Your task to perform on an android device: change alarm snooze length Image 0: 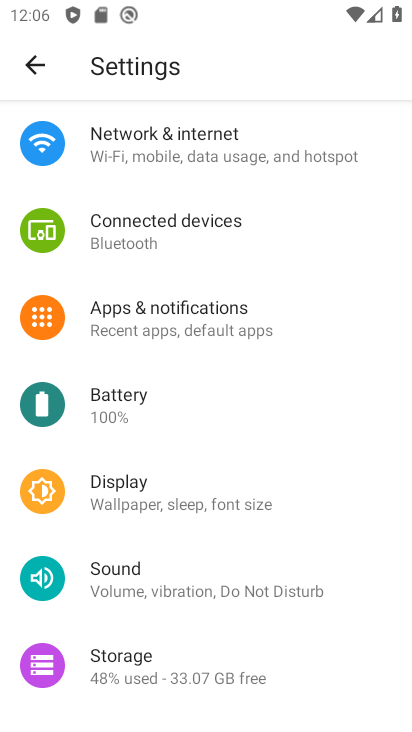
Step 0: press home button
Your task to perform on an android device: change alarm snooze length Image 1: 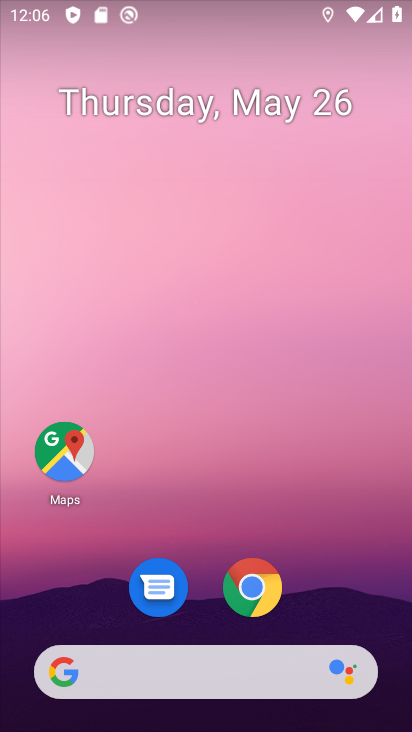
Step 1: drag from (367, 606) to (385, 176)
Your task to perform on an android device: change alarm snooze length Image 2: 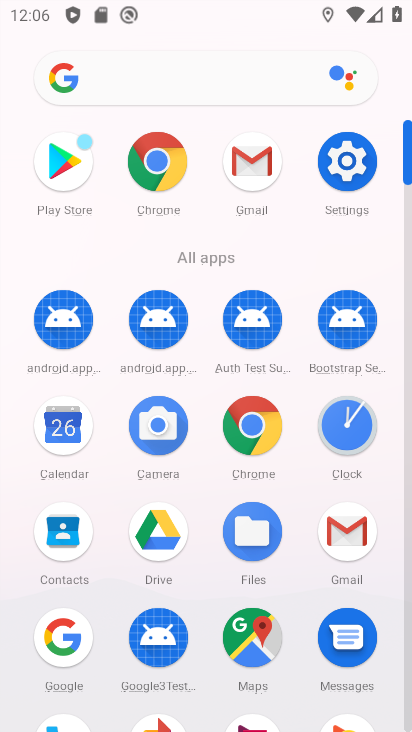
Step 2: click (353, 431)
Your task to perform on an android device: change alarm snooze length Image 3: 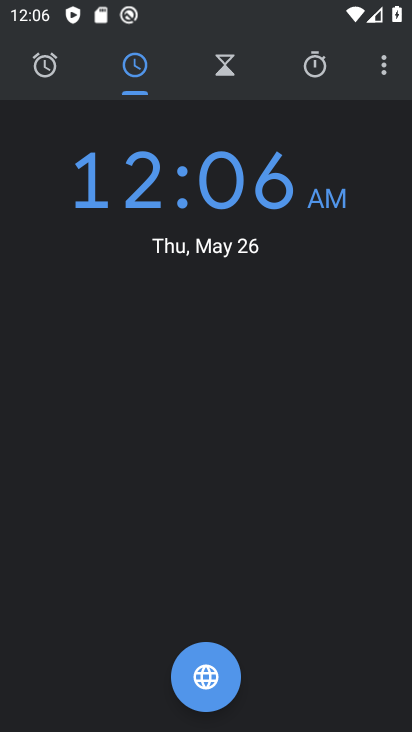
Step 3: click (384, 76)
Your task to perform on an android device: change alarm snooze length Image 4: 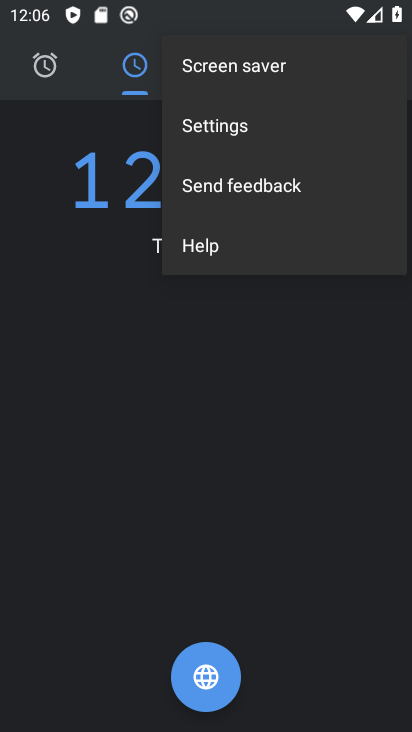
Step 4: click (246, 139)
Your task to perform on an android device: change alarm snooze length Image 5: 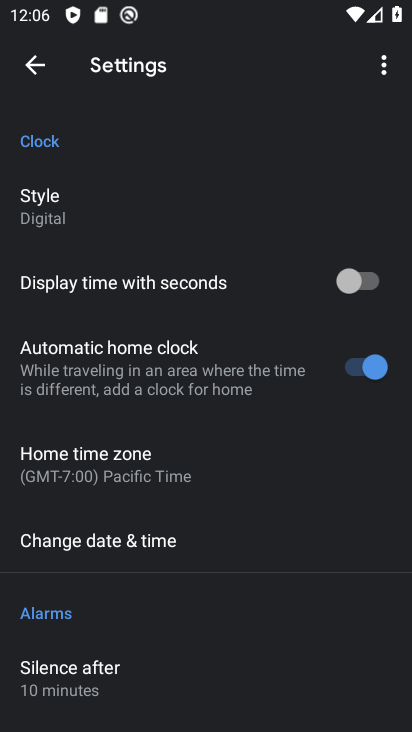
Step 5: drag from (274, 594) to (291, 483)
Your task to perform on an android device: change alarm snooze length Image 6: 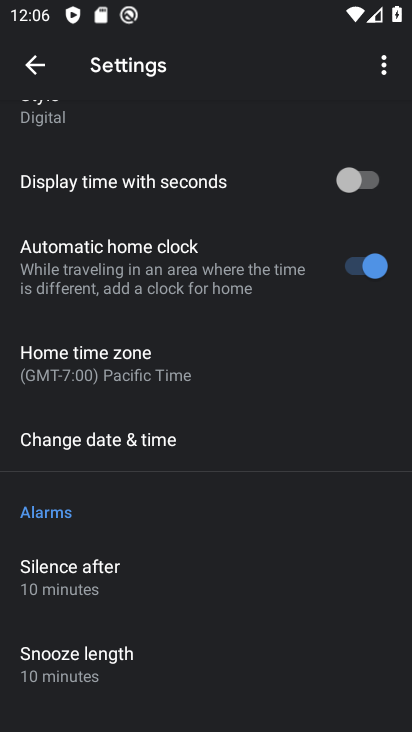
Step 6: drag from (291, 594) to (306, 465)
Your task to perform on an android device: change alarm snooze length Image 7: 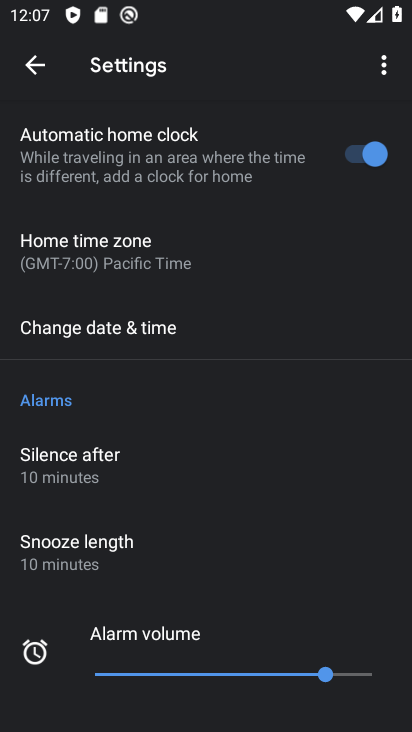
Step 7: drag from (301, 537) to (315, 427)
Your task to perform on an android device: change alarm snooze length Image 8: 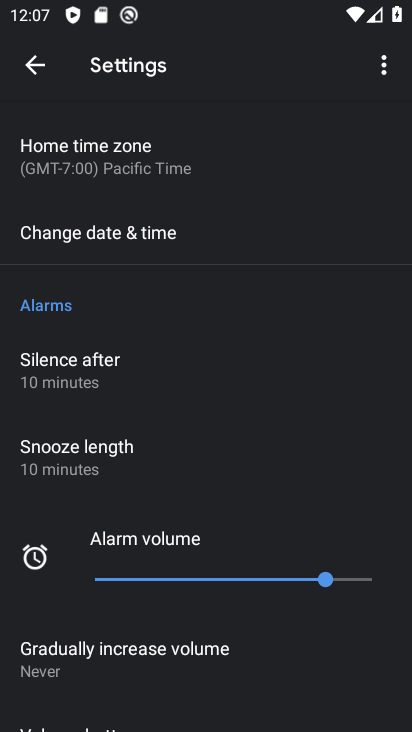
Step 8: drag from (300, 634) to (311, 520)
Your task to perform on an android device: change alarm snooze length Image 9: 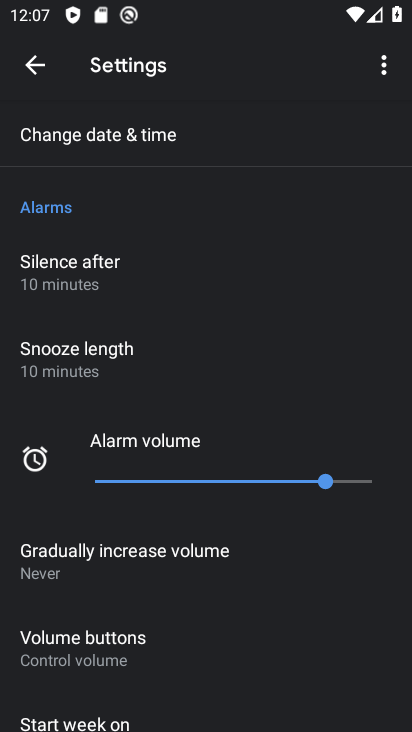
Step 9: drag from (313, 628) to (311, 530)
Your task to perform on an android device: change alarm snooze length Image 10: 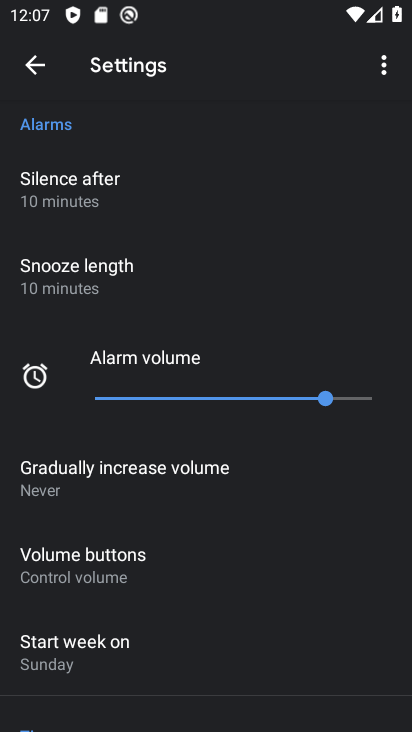
Step 10: drag from (316, 643) to (327, 546)
Your task to perform on an android device: change alarm snooze length Image 11: 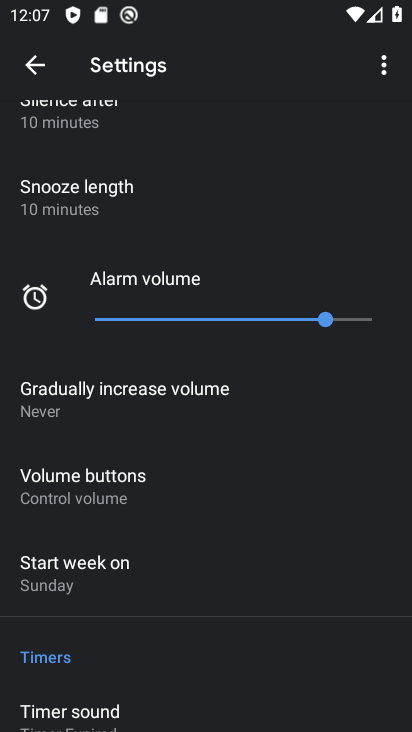
Step 11: drag from (328, 649) to (329, 525)
Your task to perform on an android device: change alarm snooze length Image 12: 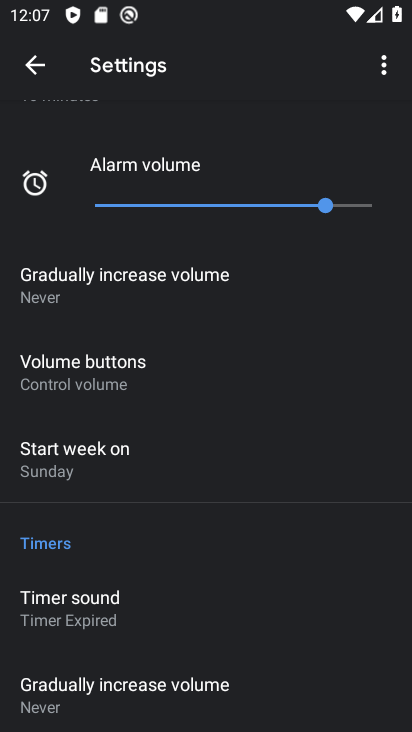
Step 12: drag from (338, 622) to (350, 531)
Your task to perform on an android device: change alarm snooze length Image 13: 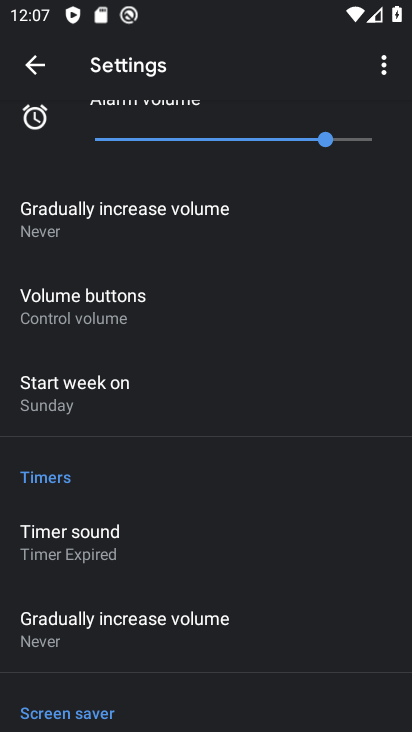
Step 13: drag from (340, 659) to (351, 455)
Your task to perform on an android device: change alarm snooze length Image 14: 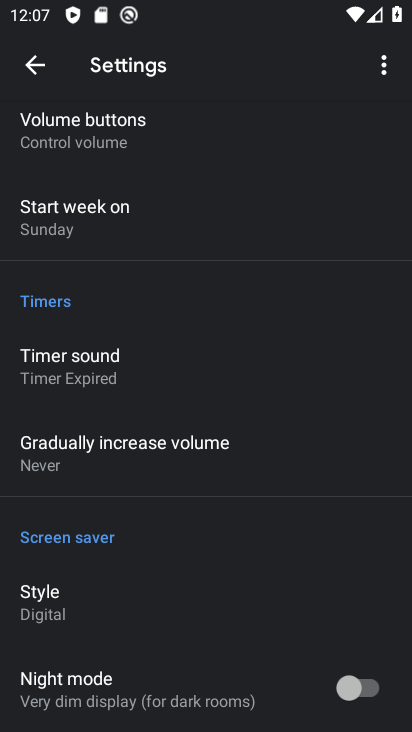
Step 14: drag from (328, 544) to (343, 425)
Your task to perform on an android device: change alarm snooze length Image 15: 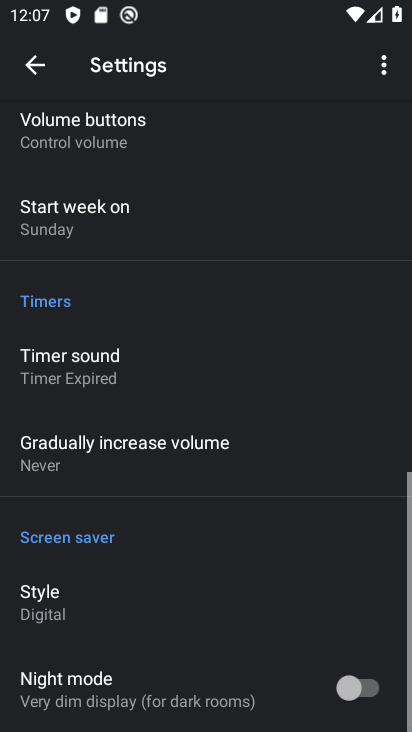
Step 15: drag from (349, 325) to (354, 412)
Your task to perform on an android device: change alarm snooze length Image 16: 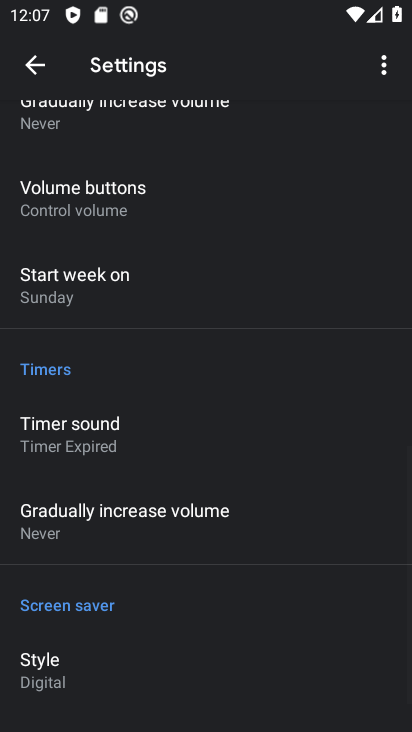
Step 16: drag from (331, 322) to (329, 435)
Your task to perform on an android device: change alarm snooze length Image 17: 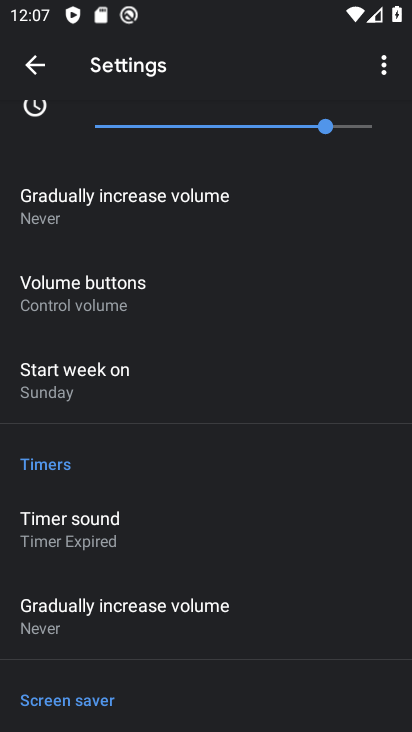
Step 17: drag from (310, 339) to (306, 439)
Your task to perform on an android device: change alarm snooze length Image 18: 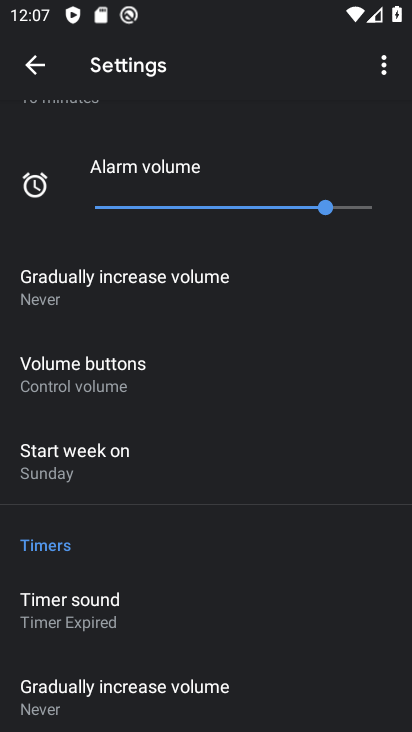
Step 18: drag from (278, 342) to (299, 442)
Your task to perform on an android device: change alarm snooze length Image 19: 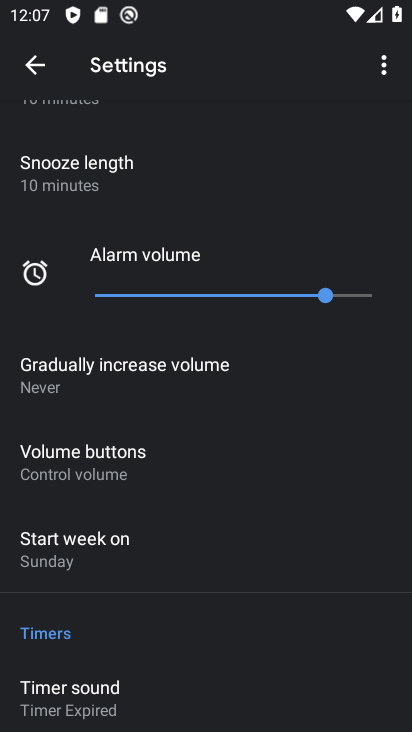
Step 19: drag from (284, 277) to (299, 410)
Your task to perform on an android device: change alarm snooze length Image 20: 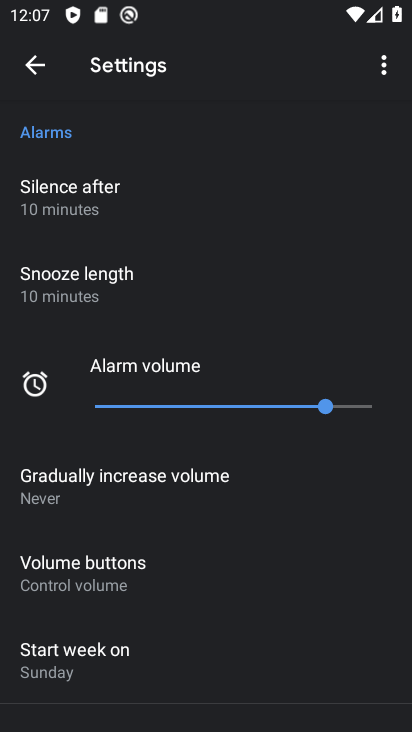
Step 20: drag from (315, 282) to (319, 399)
Your task to perform on an android device: change alarm snooze length Image 21: 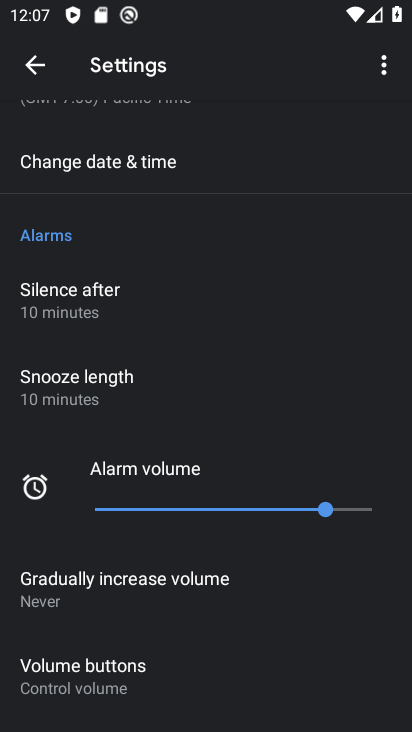
Step 21: click (122, 400)
Your task to perform on an android device: change alarm snooze length Image 22: 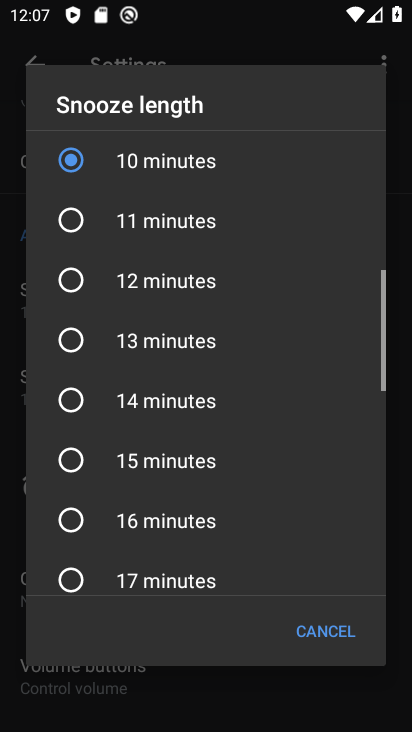
Step 22: click (145, 406)
Your task to perform on an android device: change alarm snooze length Image 23: 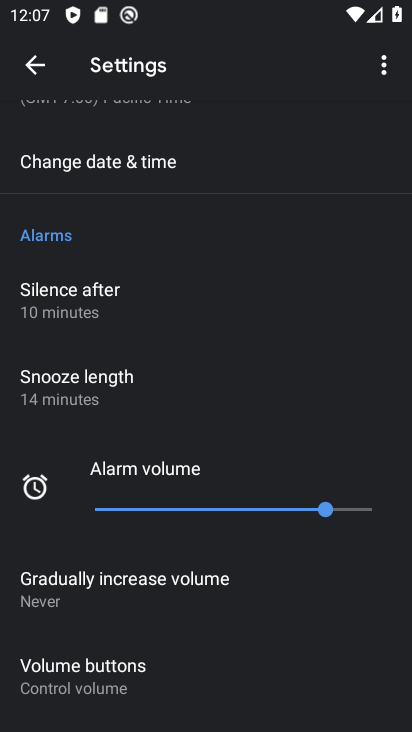
Step 23: task complete